Your task to perform on an android device: turn on showing notifications on the lock screen Image 0: 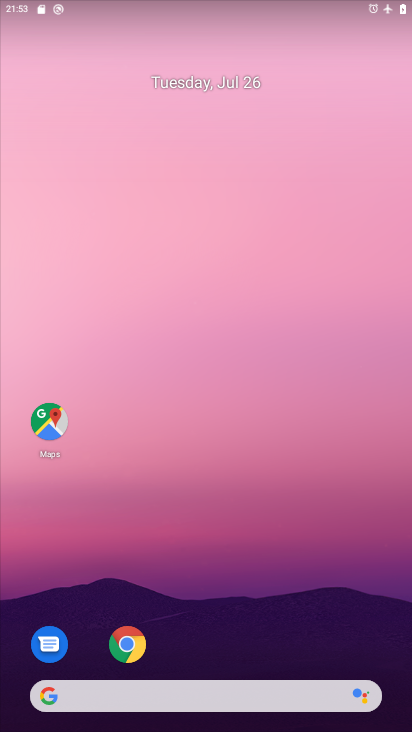
Step 0: drag from (235, 633) to (234, 186)
Your task to perform on an android device: turn on showing notifications on the lock screen Image 1: 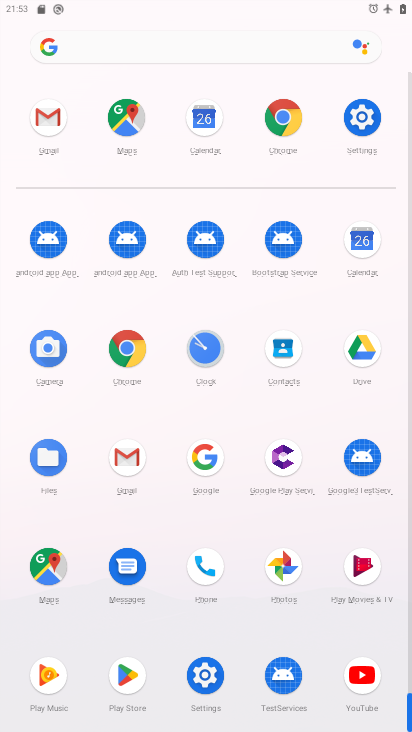
Step 1: click (356, 105)
Your task to perform on an android device: turn on showing notifications on the lock screen Image 2: 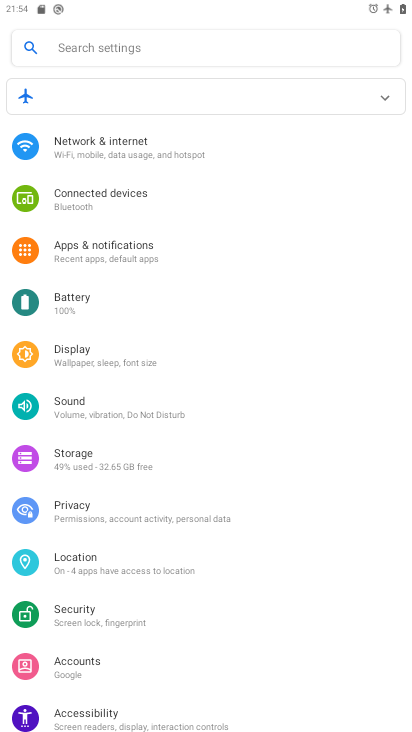
Step 2: click (128, 255)
Your task to perform on an android device: turn on showing notifications on the lock screen Image 3: 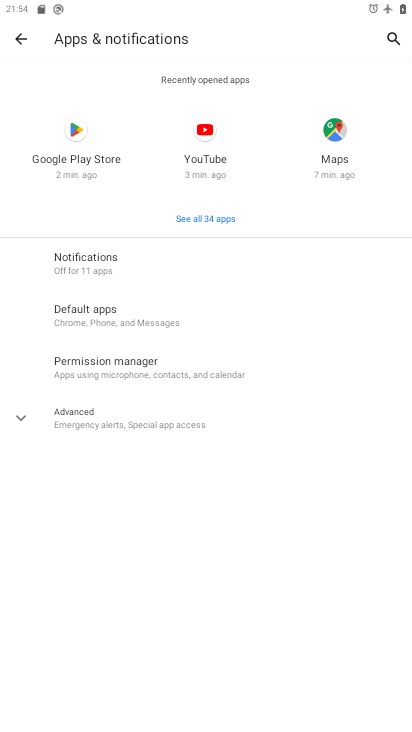
Step 3: click (100, 255)
Your task to perform on an android device: turn on showing notifications on the lock screen Image 4: 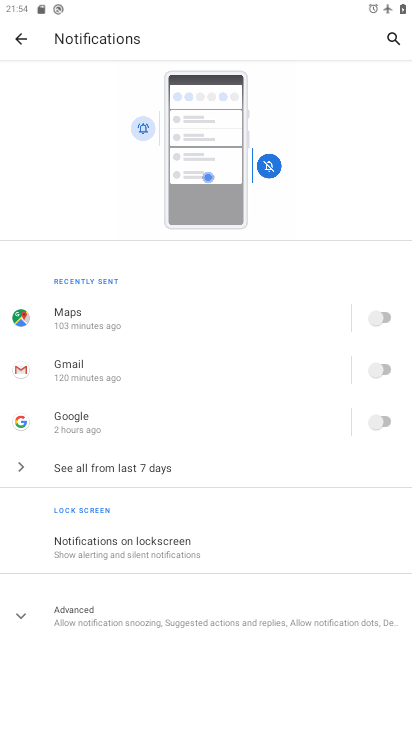
Step 4: click (182, 549)
Your task to perform on an android device: turn on showing notifications on the lock screen Image 5: 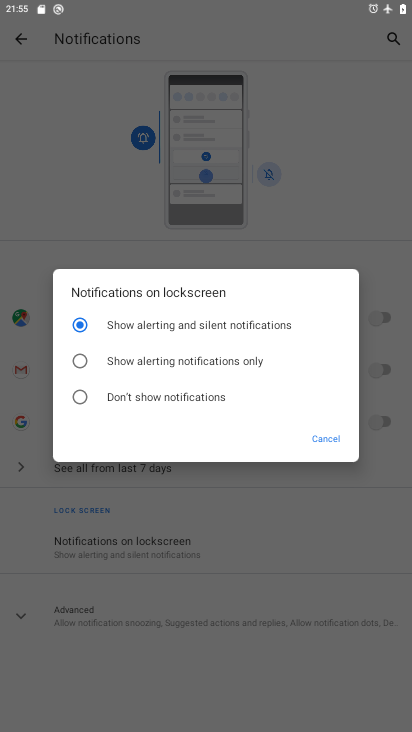
Step 5: task complete